Your task to perform on an android device: turn off javascript in the chrome app Image 0: 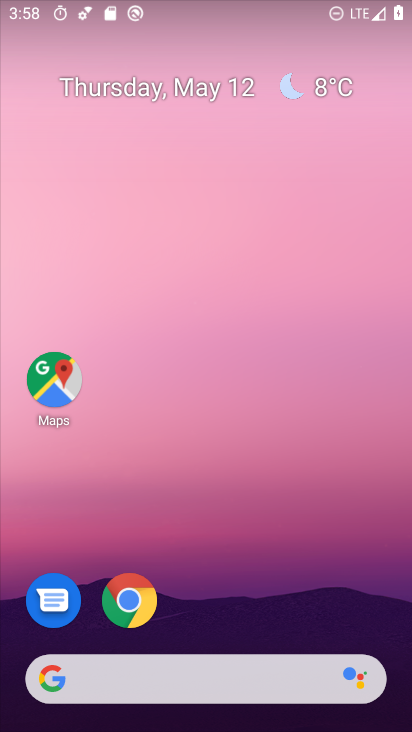
Step 0: click (132, 601)
Your task to perform on an android device: turn off javascript in the chrome app Image 1: 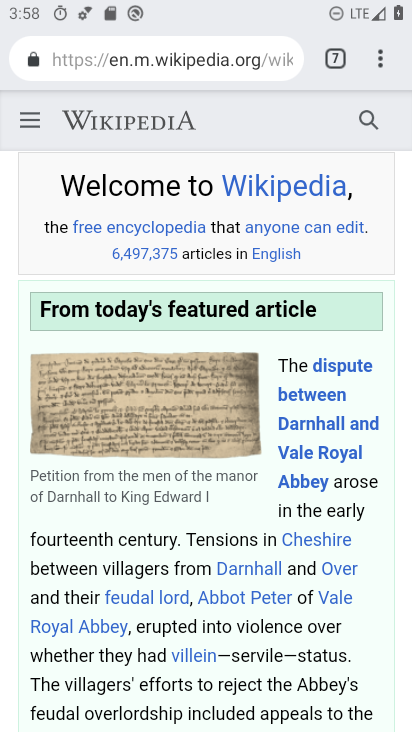
Step 1: click (381, 68)
Your task to perform on an android device: turn off javascript in the chrome app Image 2: 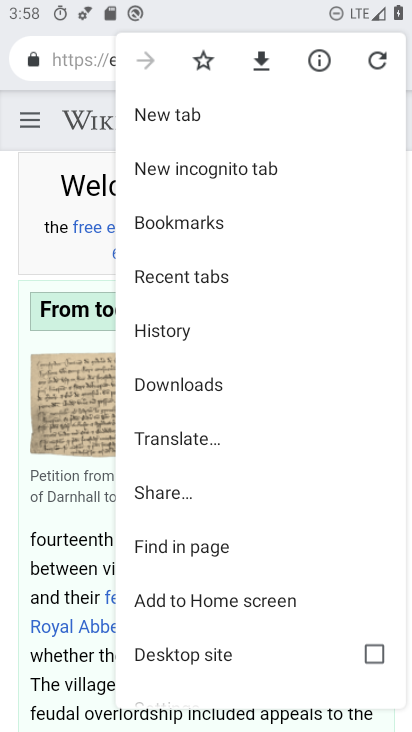
Step 2: drag from (173, 630) to (208, 315)
Your task to perform on an android device: turn off javascript in the chrome app Image 3: 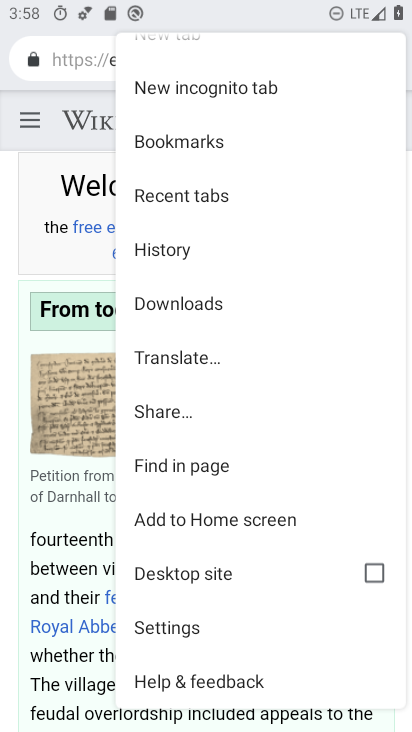
Step 3: click (181, 619)
Your task to perform on an android device: turn off javascript in the chrome app Image 4: 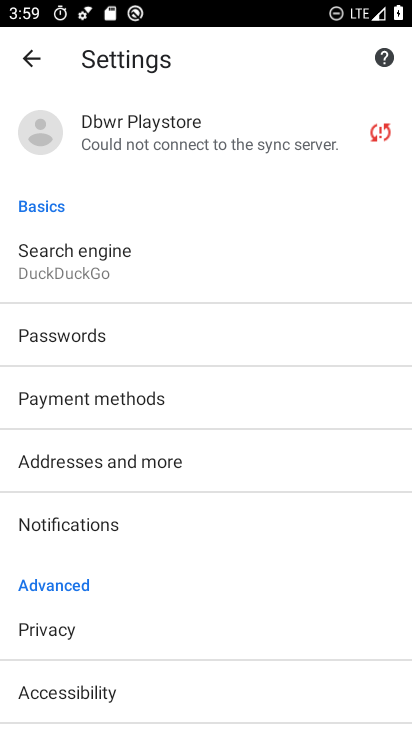
Step 4: drag from (123, 674) to (145, 246)
Your task to perform on an android device: turn off javascript in the chrome app Image 5: 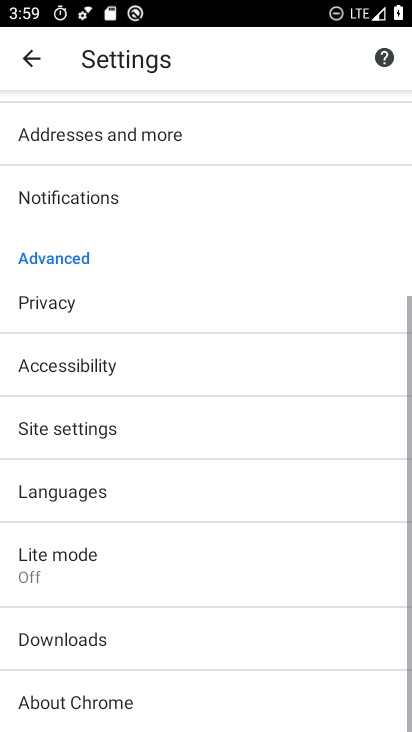
Step 5: click (79, 426)
Your task to perform on an android device: turn off javascript in the chrome app Image 6: 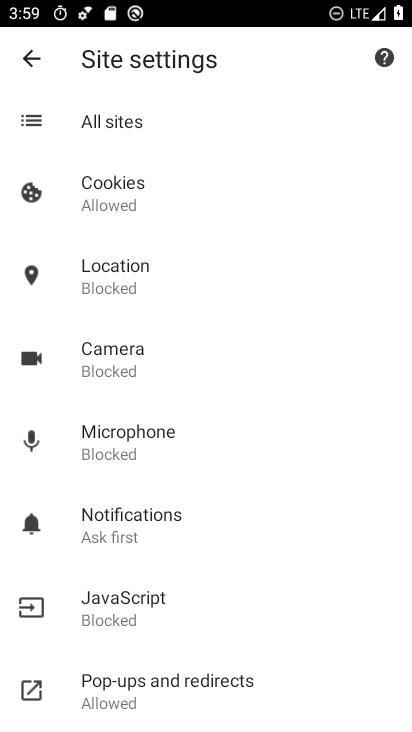
Step 6: click (137, 607)
Your task to perform on an android device: turn off javascript in the chrome app Image 7: 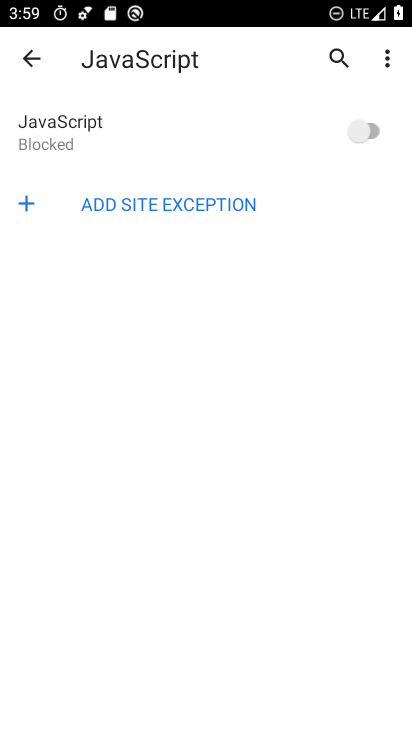
Step 7: task complete